Your task to perform on an android device: open wifi settings Image 0: 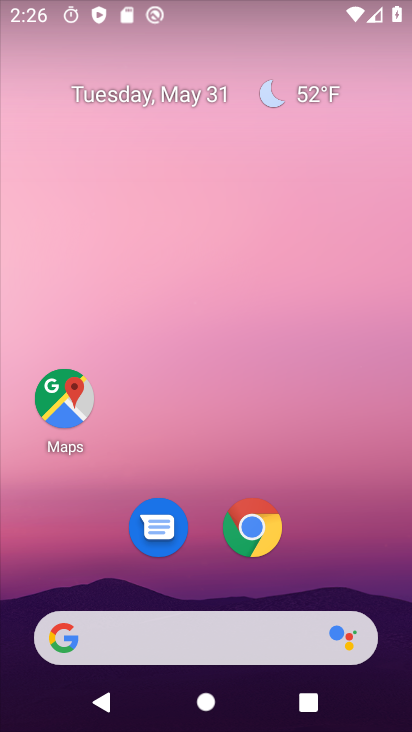
Step 0: drag from (68, 600) to (206, 103)
Your task to perform on an android device: open wifi settings Image 1: 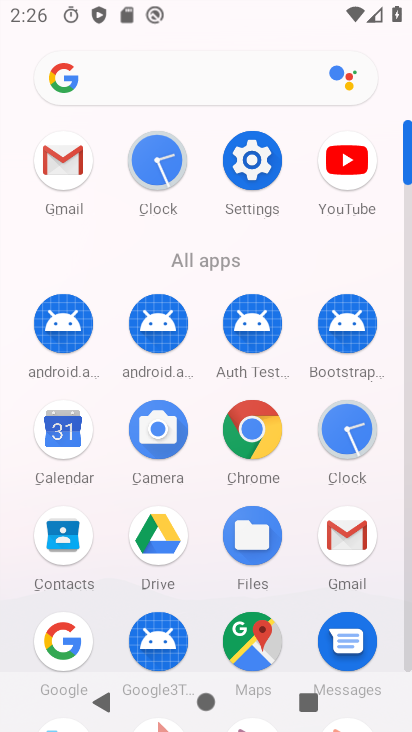
Step 1: drag from (88, 592) to (182, 319)
Your task to perform on an android device: open wifi settings Image 2: 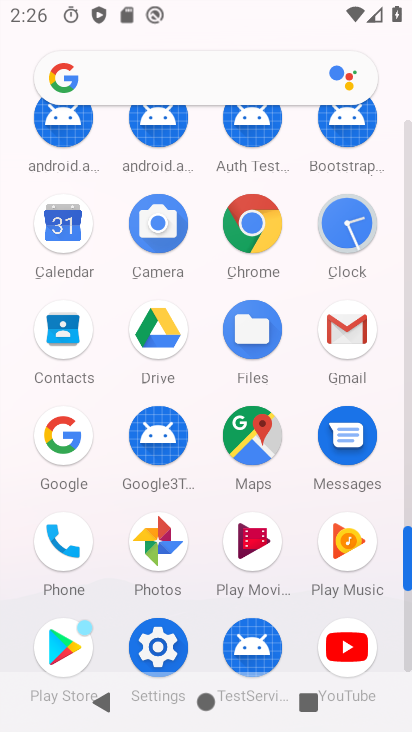
Step 2: click (156, 652)
Your task to perform on an android device: open wifi settings Image 3: 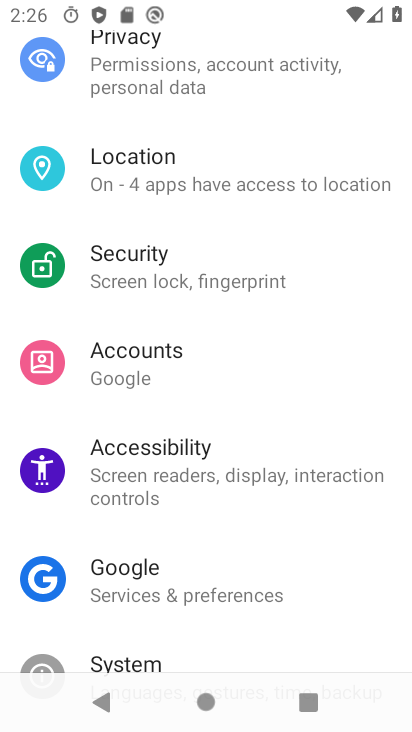
Step 3: drag from (275, 135) to (218, 538)
Your task to perform on an android device: open wifi settings Image 4: 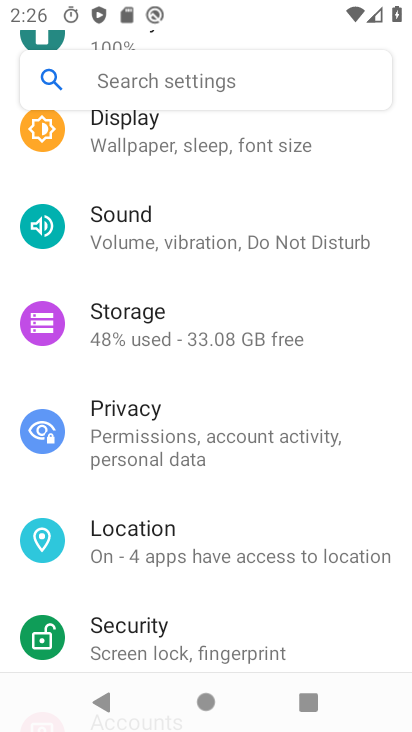
Step 4: drag from (223, 137) to (215, 554)
Your task to perform on an android device: open wifi settings Image 5: 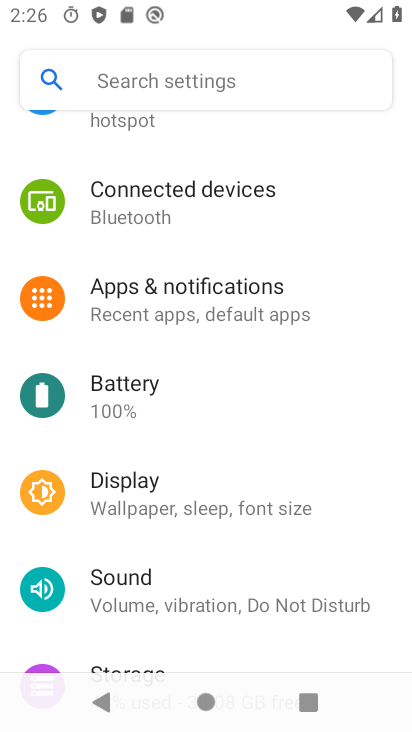
Step 5: drag from (207, 213) to (207, 591)
Your task to perform on an android device: open wifi settings Image 6: 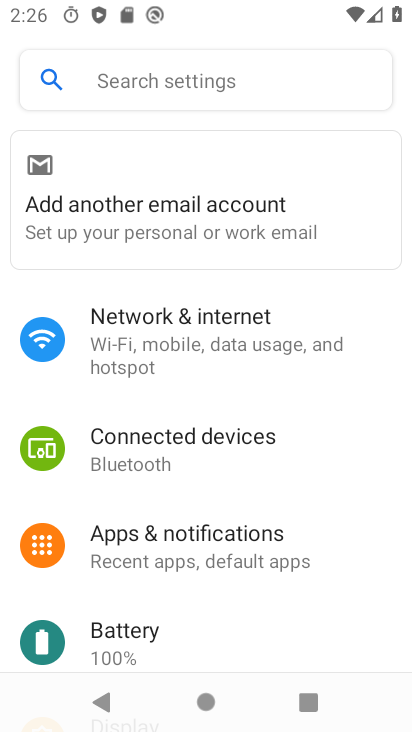
Step 6: click (228, 355)
Your task to perform on an android device: open wifi settings Image 7: 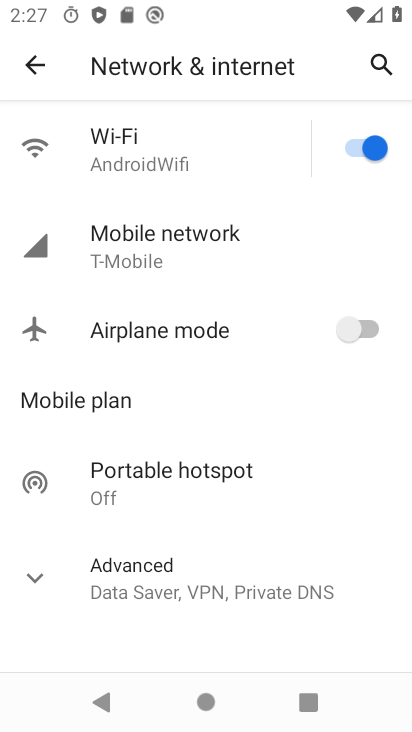
Step 7: click (214, 158)
Your task to perform on an android device: open wifi settings Image 8: 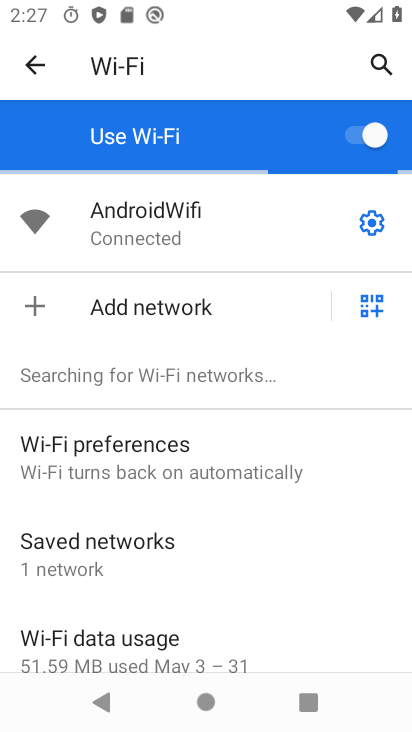
Step 8: task complete